Your task to perform on an android device: Go to Android settings Image 0: 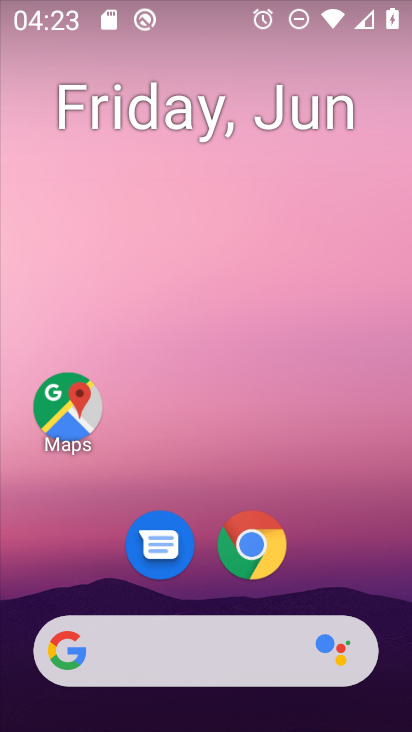
Step 0: drag from (326, 565) to (218, 126)
Your task to perform on an android device: Go to Android settings Image 1: 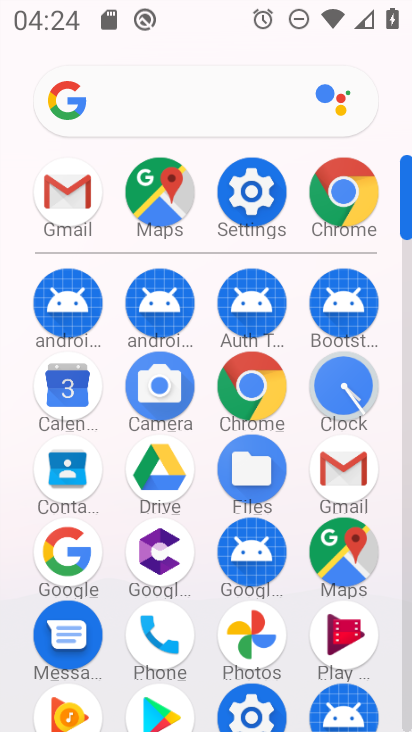
Step 1: click (258, 205)
Your task to perform on an android device: Go to Android settings Image 2: 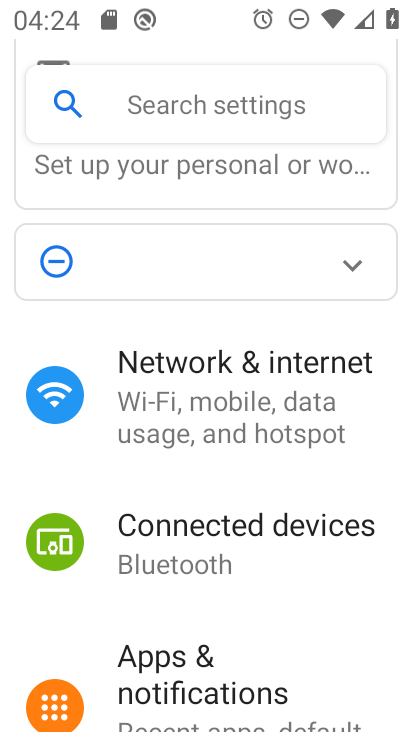
Step 2: drag from (256, 636) to (317, 2)
Your task to perform on an android device: Go to Android settings Image 3: 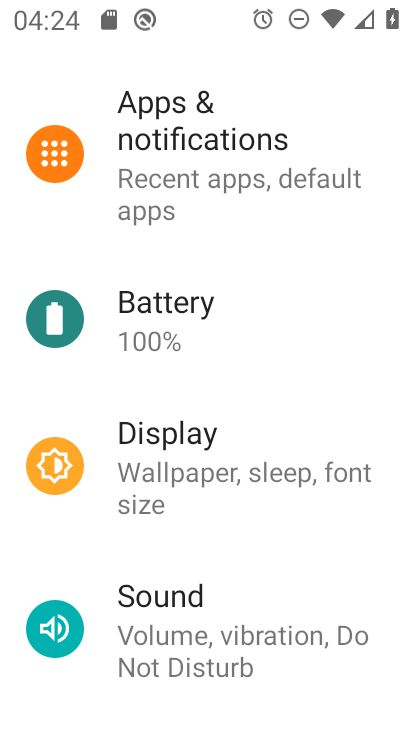
Step 3: drag from (271, 573) to (239, 0)
Your task to perform on an android device: Go to Android settings Image 4: 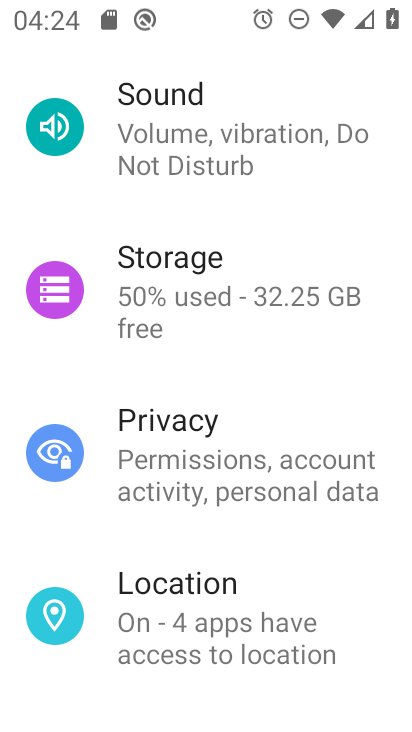
Step 4: drag from (230, 602) to (188, 0)
Your task to perform on an android device: Go to Android settings Image 5: 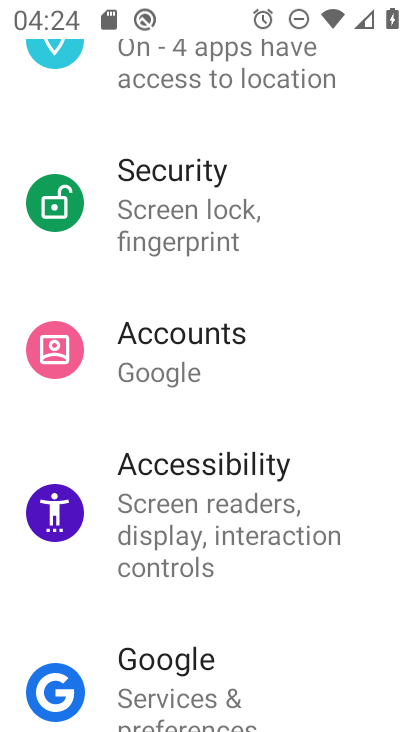
Step 5: drag from (209, 587) to (219, 3)
Your task to perform on an android device: Go to Android settings Image 6: 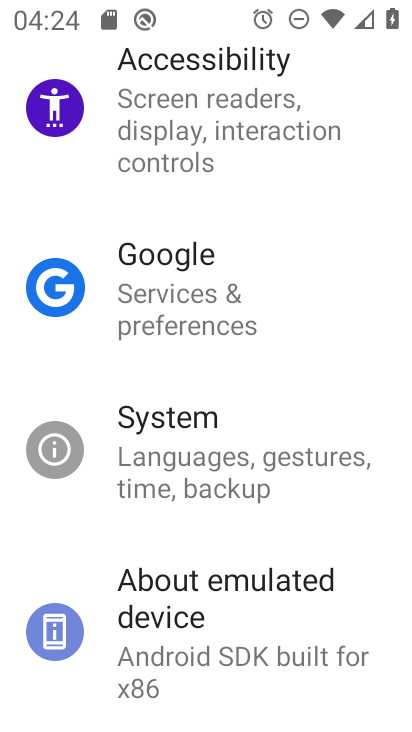
Step 6: click (184, 476)
Your task to perform on an android device: Go to Android settings Image 7: 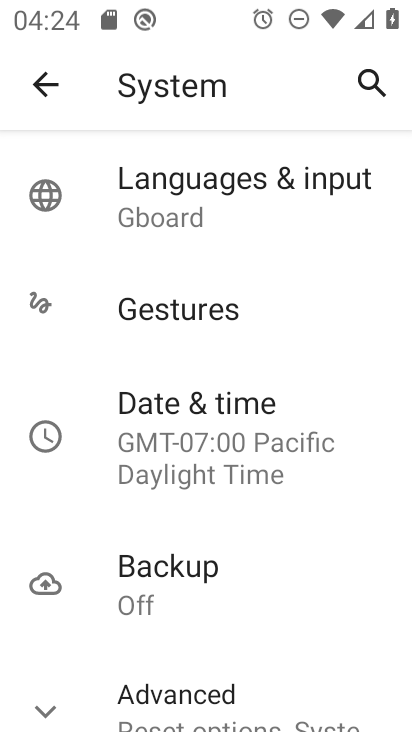
Step 7: task complete